Your task to perform on an android device: turn pop-ups off in chrome Image 0: 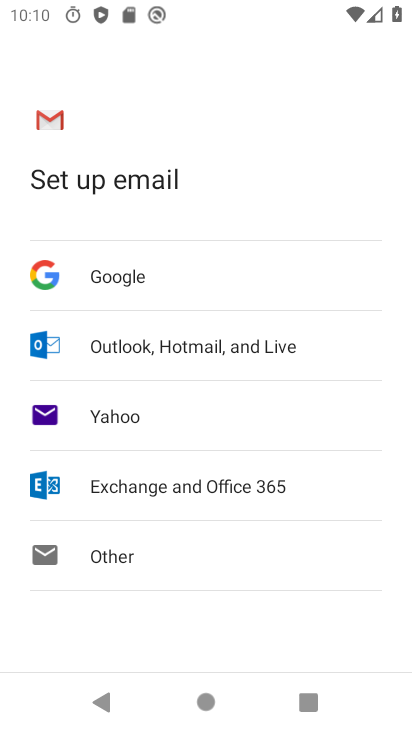
Step 0: press home button
Your task to perform on an android device: turn pop-ups off in chrome Image 1: 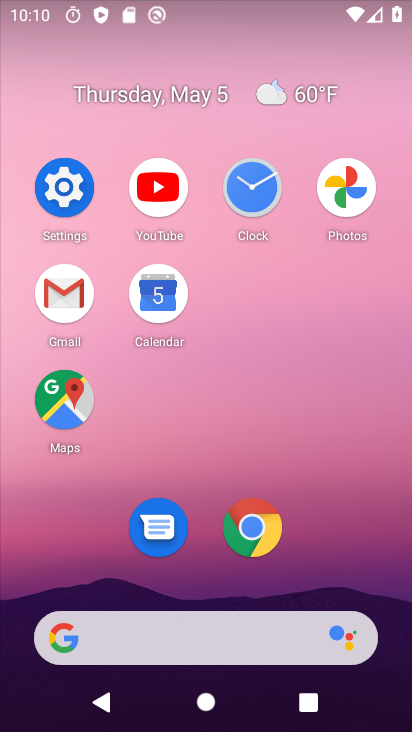
Step 1: click (264, 535)
Your task to perform on an android device: turn pop-ups off in chrome Image 2: 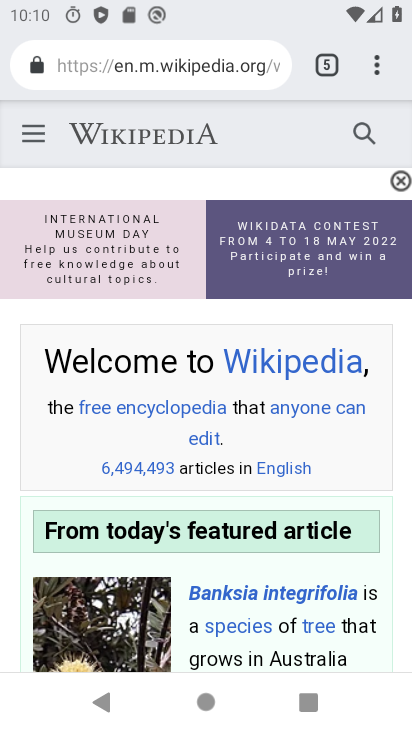
Step 2: click (379, 64)
Your task to perform on an android device: turn pop-ups off in chrome Image 3: 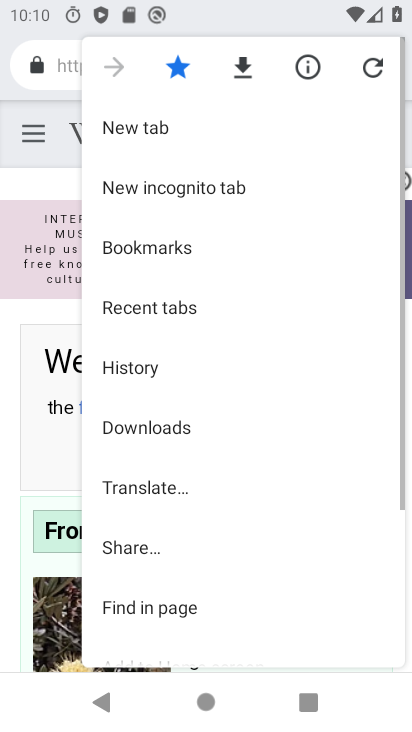
Step 3: drag from (194, 481) to (212, 212)
Your task to perform on an android device: turn pop-ups off in chrome Image 4: 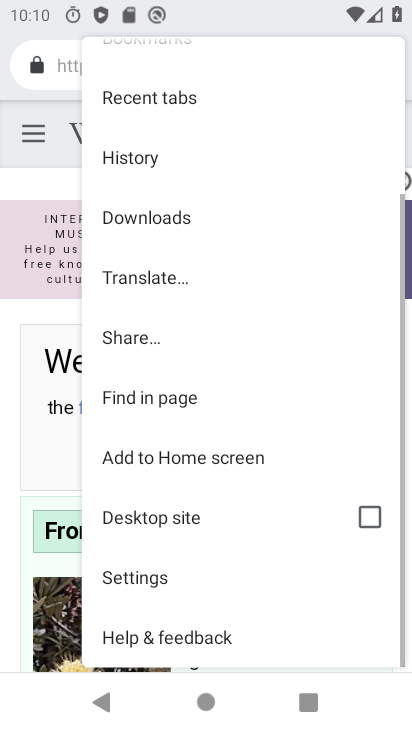
Step 4: click (162, 567)
Your task to perform on an android device: turn pop-ups off in chrome Image 5: 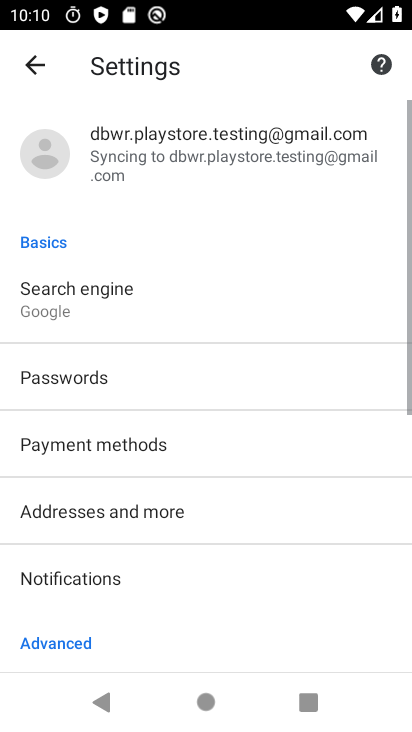
Step 5: drag from (162, 558) to (218, 205)
Your task to perform on an android device: turn pop-ups off in chrome Image 6: 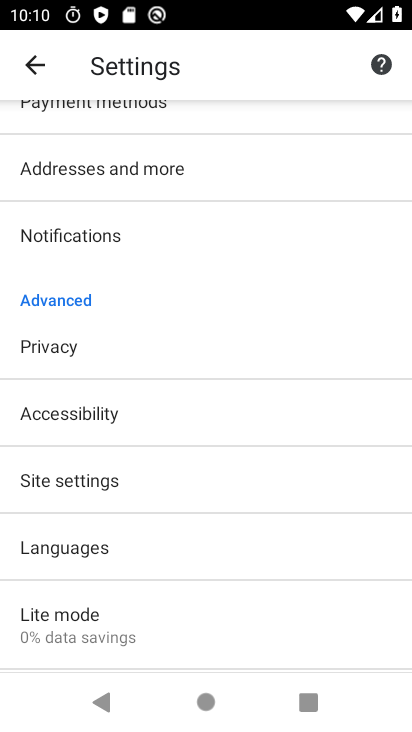
Step 6: click (183, 486)
Your task to perform on an android device: turn pop-ups off in chrome Image 7: 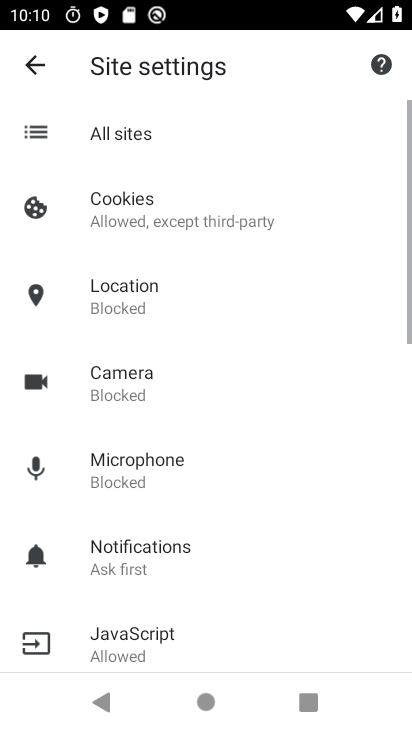
Step 7: drag from (183, 486) to (213, 161)
Your task to perform on an android device: turn pop-ups off in chrome Image 8: 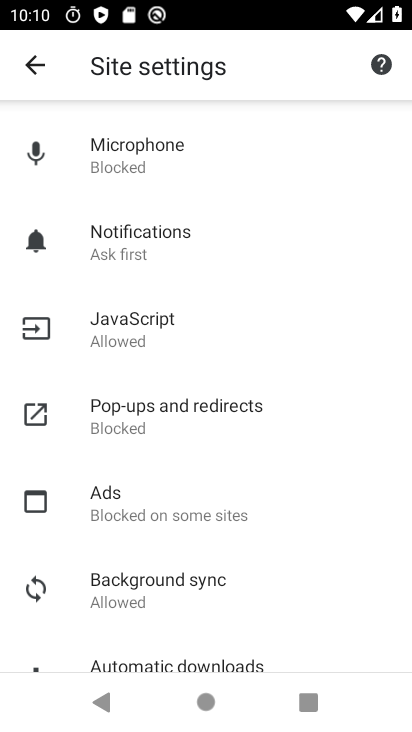
Step 8: click (155, 441)
Your task to perform on an android device: turn pop-ups off in chrome Image 9: 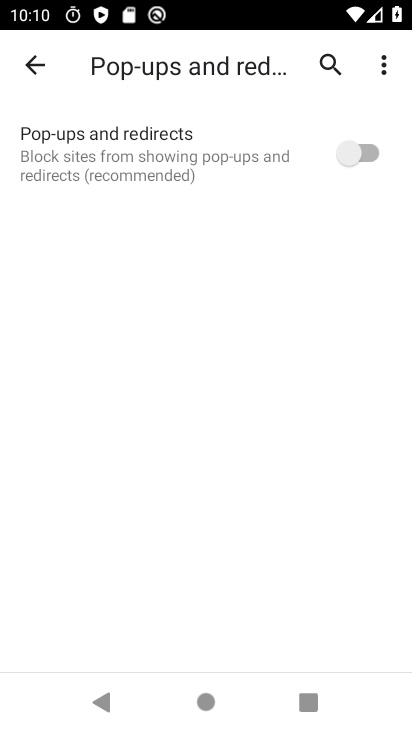
Step 9: task complete